Your task to perform on an android device: clear history in the chrome app Image 0: 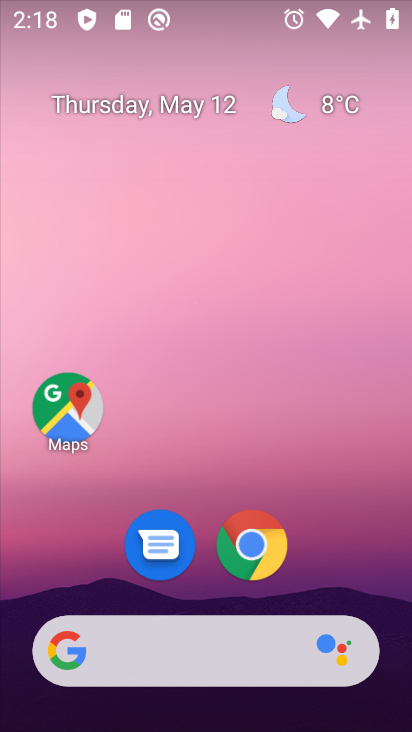
Step 0: click (256, 545)
Your task to perform on an android device: clear history in the chrome app Image 1: 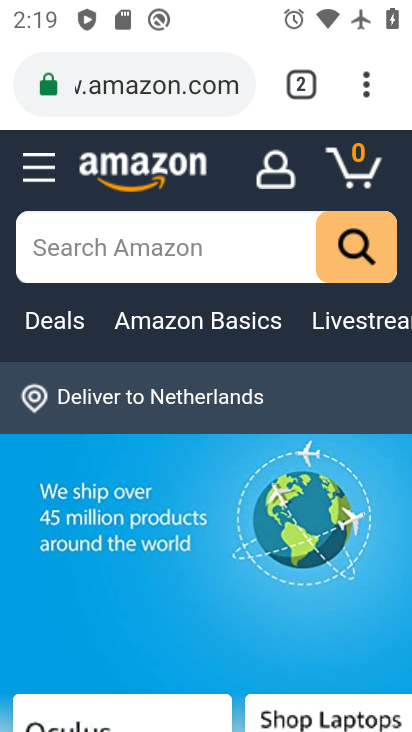
Step 1: click (365, 87)
Your task to perform on an android device: clear history in the chrome app Image 2: 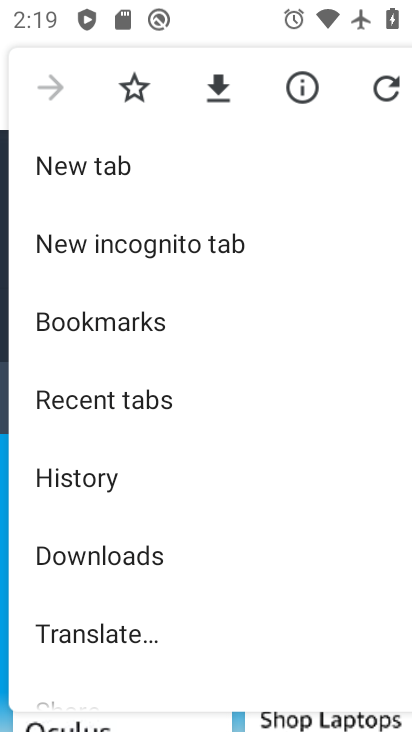
Step 2: click (77, 466)
Your task to perform on an android device: clear history in the chrome app Image 3: 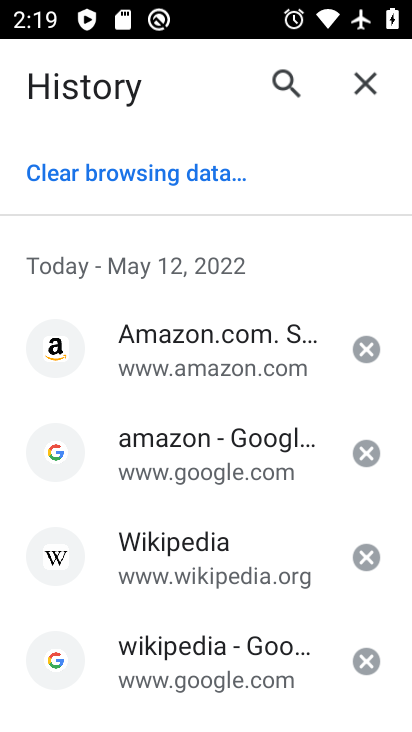
Step 3: click (113, 172)
Your task to perform on an android device: clear history in the chrome app Image 4: 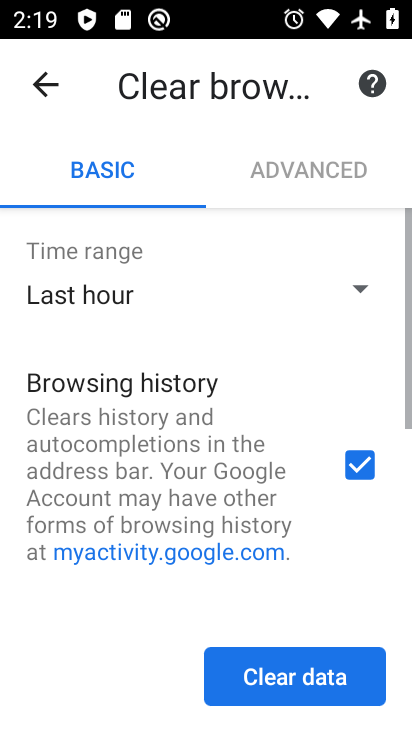
Step 4: drag from (317, 507) to (273, 129)
Your task to perform on an android device: clear history in the chrome app Image 5: 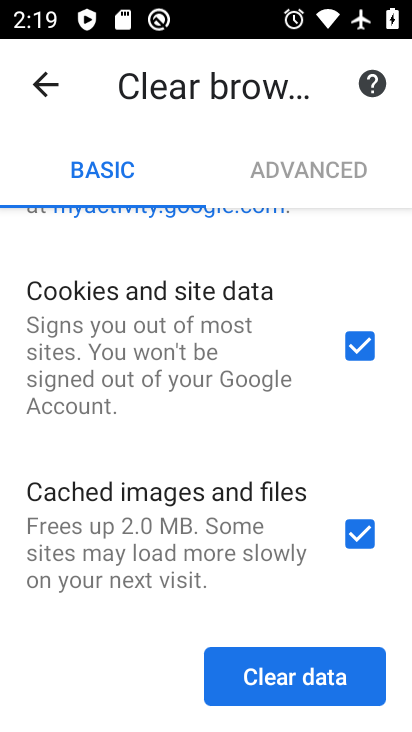
Step 5: click (358, 345)
Your task to perform on an android device: clear history in the chrome app Image 6: 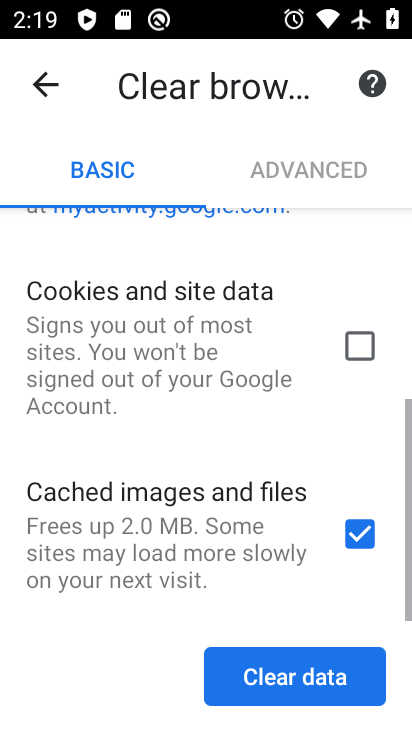
Step 6: click (359, 543)
Your task to perform on an android device: clear history in the chrome app Image 7: 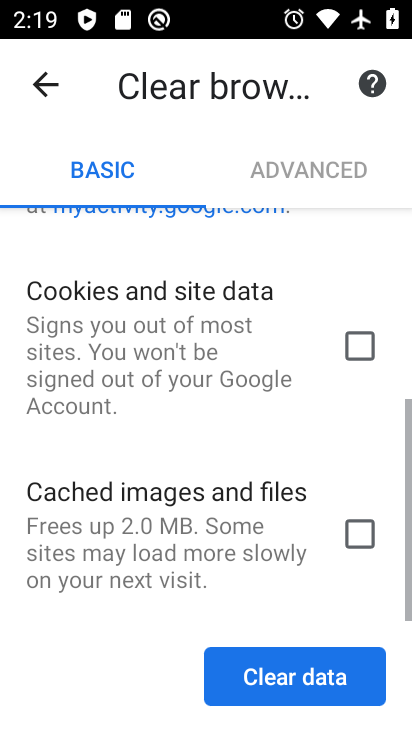
Step 7: drag from (265, 576) to (251, 231)
Your task to perform on an android device: clear history in the chrome app Image 8: 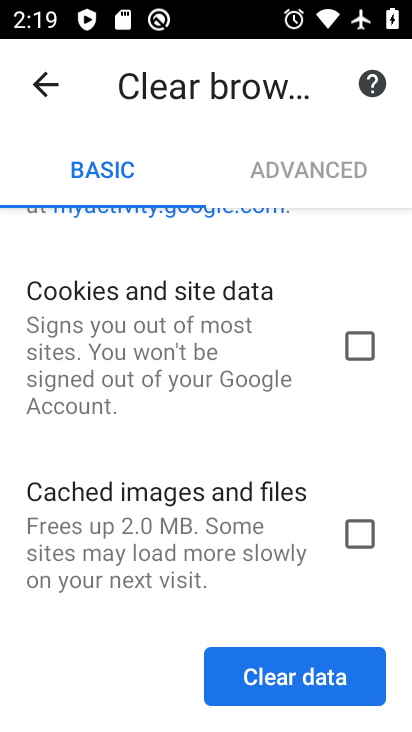
Step 8: click (287, 664)
Your task to perform on an android device: clear history in the chrome app Image 9: 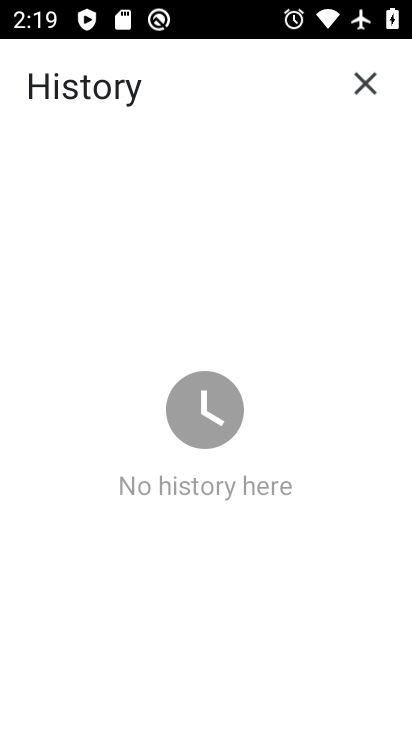
Step 9: task complete